Your task to perform on an android device: Go to accessibility settings Image 0: 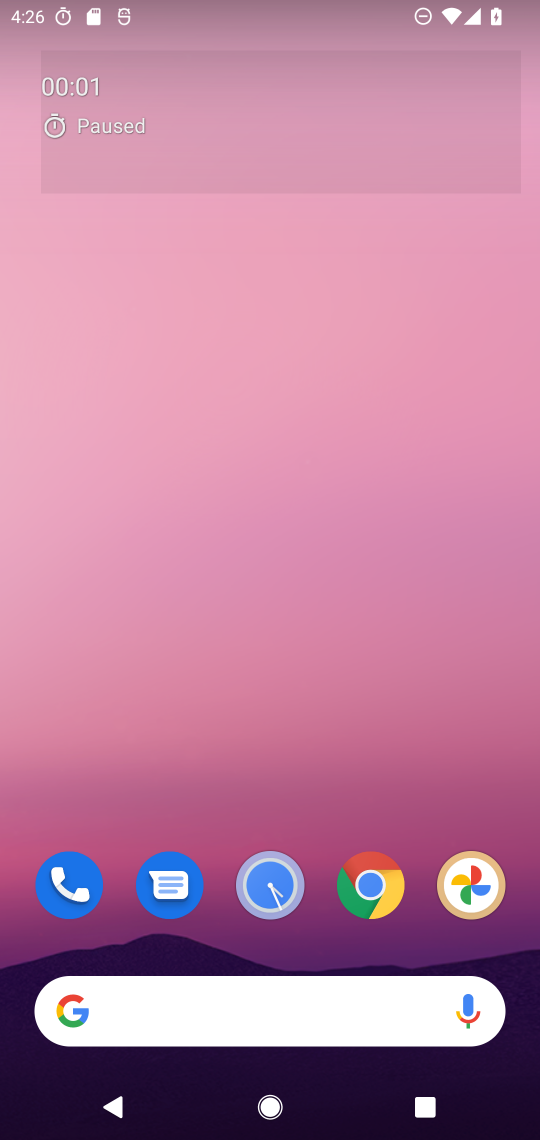
Step 0: drag from (194, 994) to (208, 80)
Your task to perform on an android device: Go to accessibility settings Image 1: 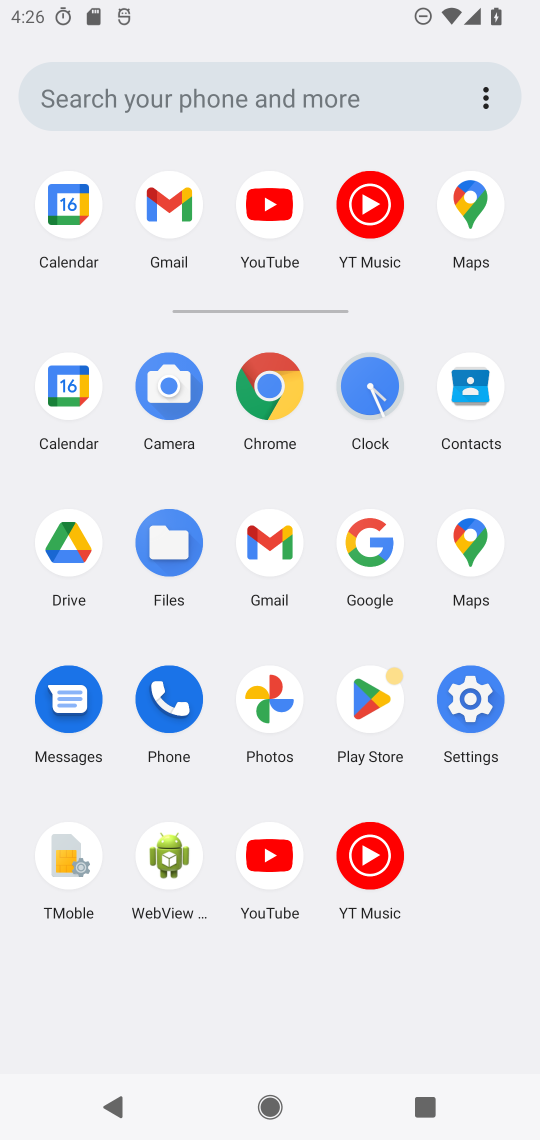
Step 1: click (466, 698)
Your task to perform on an android device: Go to accessibility settings Image 2: 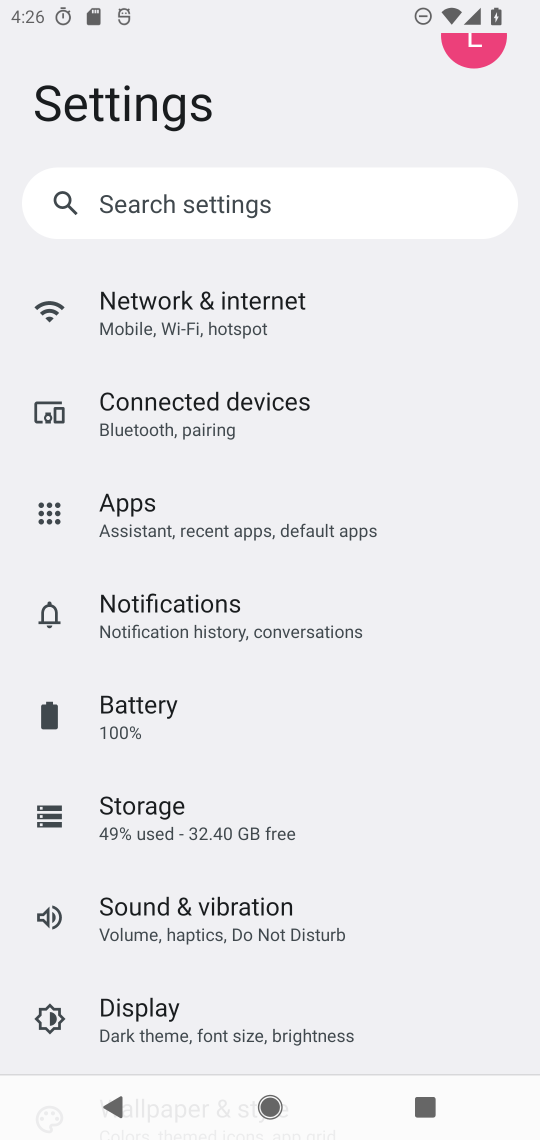
Step 2: drag from (155, 971) to (323, 274)
Your task to perform on an android device: Go to accessibility settings Image 3: 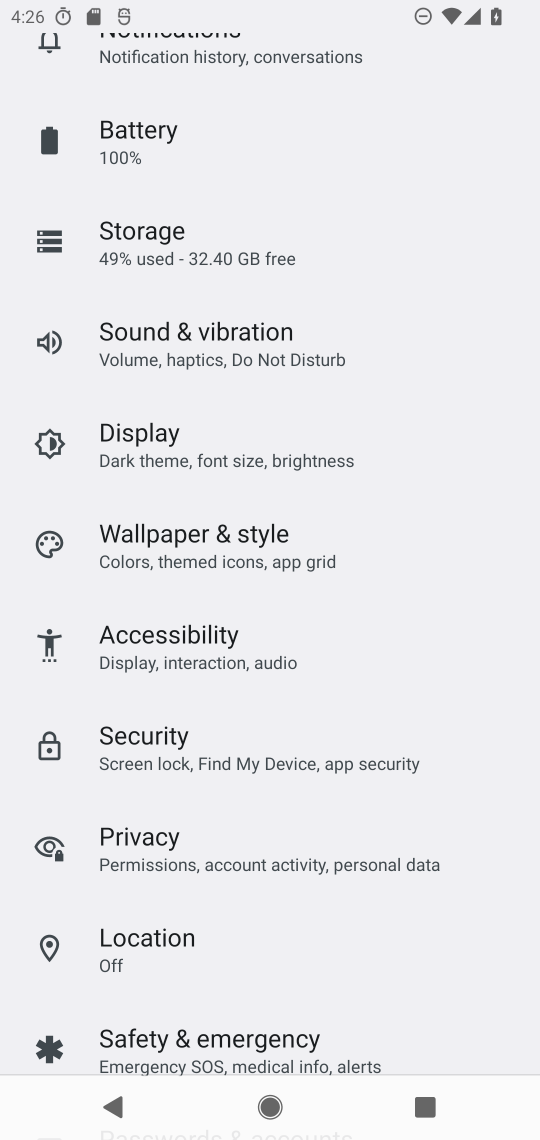
Step 3: click (194, 634)
Your task to perform on an android device: Go to accessibility settings Image 4: 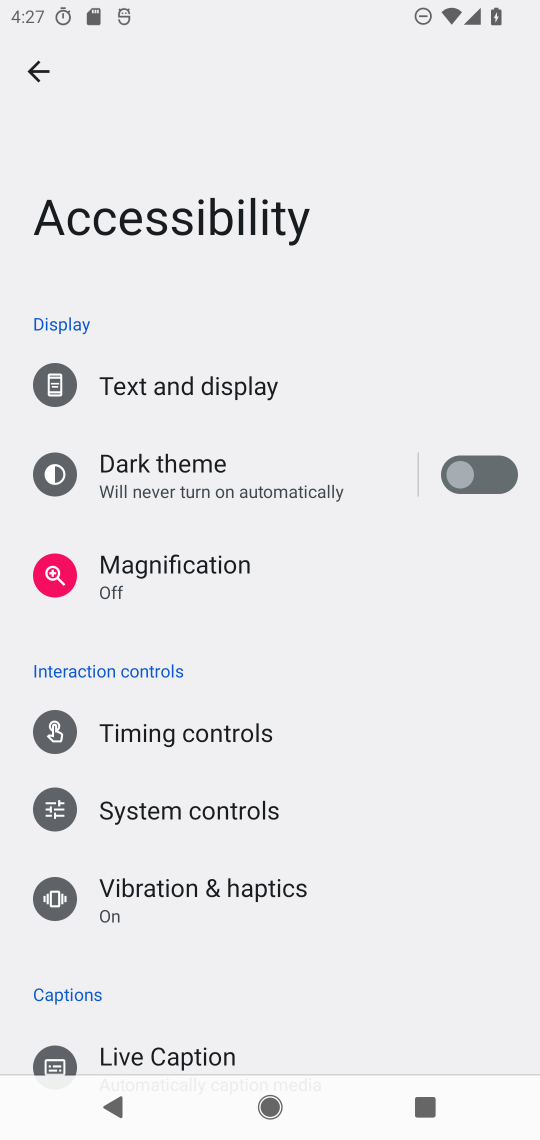
Step 4: task complete